Your task to perform on an android device: Open privacy settings Image 0: 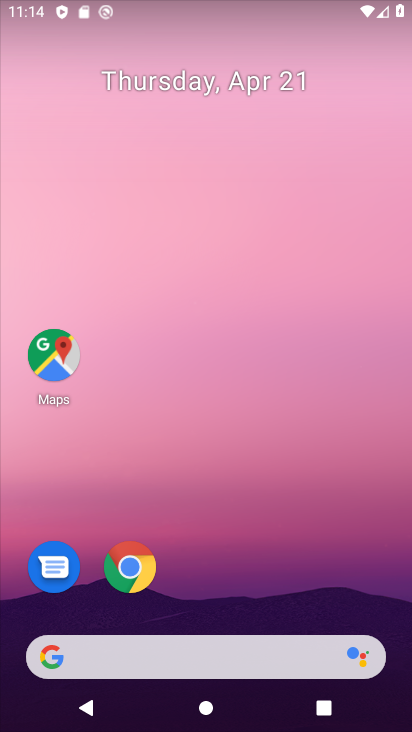
Step 0: drag from (381, 559) to (359, 151)
Your task to perform on an android device: Open privacy settings Image 1: 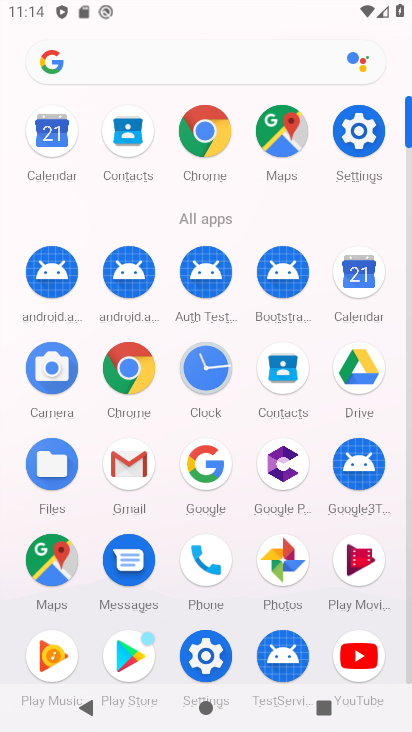
Step 1: click (349, 139)
Your task to perform on an android device: Open privacy settings Image 2: 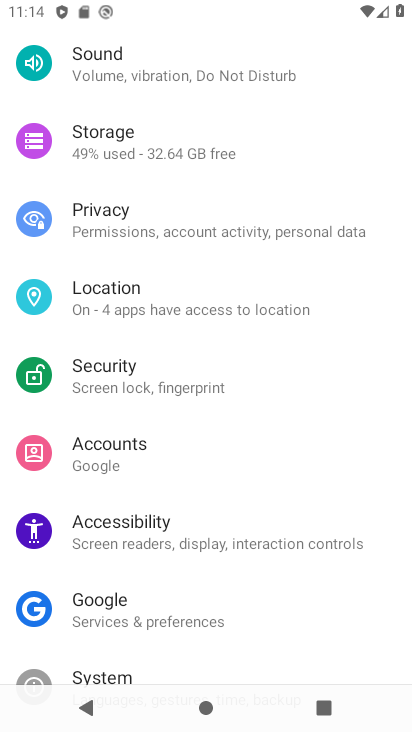
Step 2: click (155, 216)
Your task to perform on an android device: Open privacy settings Image 3: 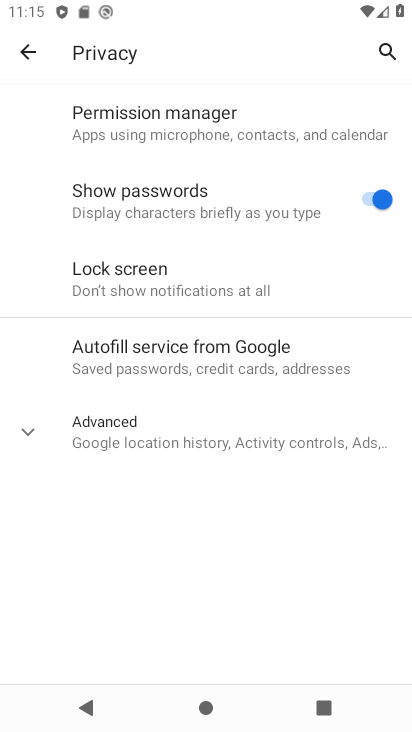
Step 3: task complete